Your task to perform on an android device: What is the news today? Image 0: 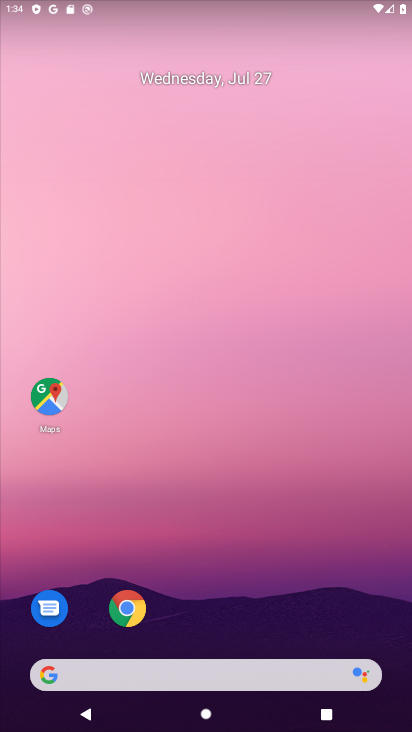
Step 0: click (96, 680)
Your task to perform on an android device: What is the news today? Image 1: 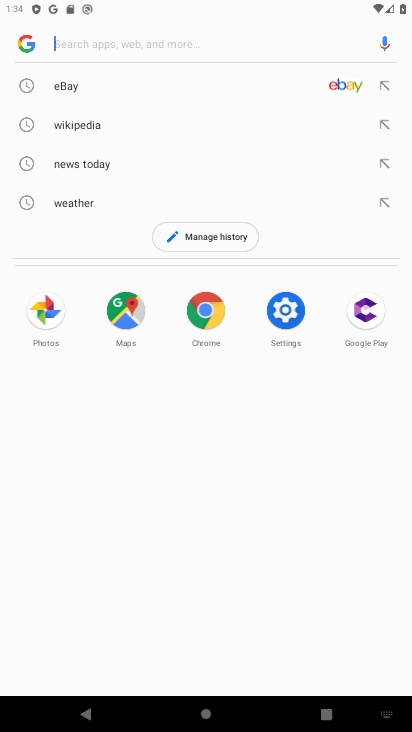
Step 1: type "What is the news today?"
Your task to perform on an android device: What is the news today? Image 2: 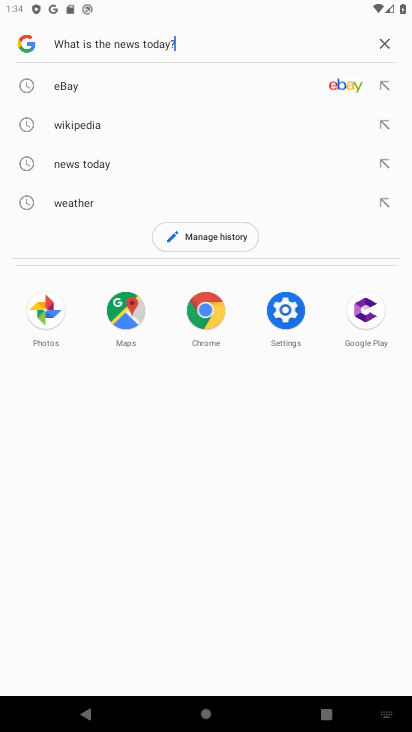
Step 2: type ""
Your task to perform on an android device: What is the news today? Image 3: 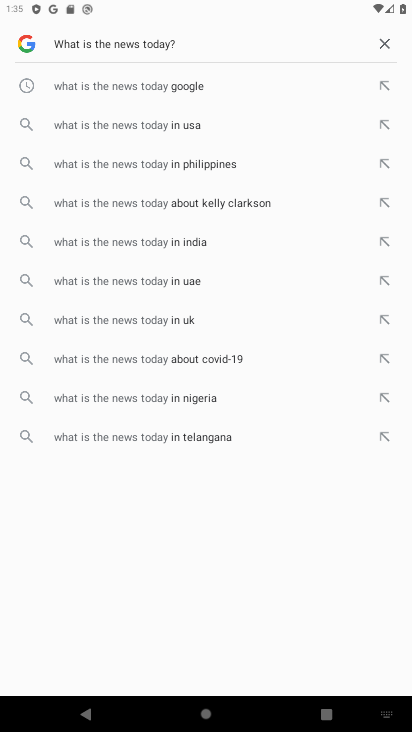
Step 3: type ""
Your task to perform on an android device: What is the news today? Image 4: 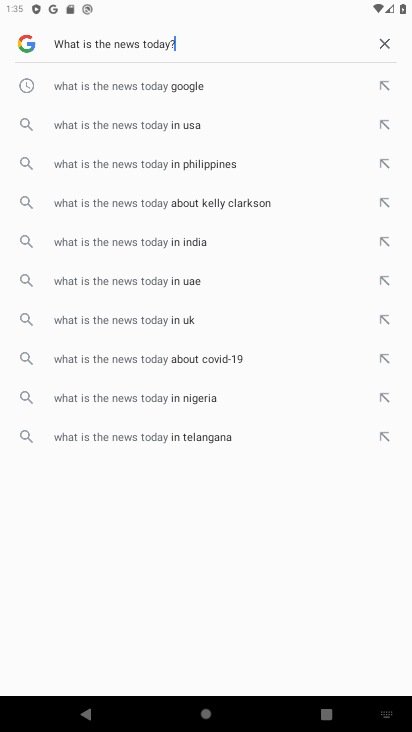
Step 4: type ""
Your task to perform on an android device: What is the news today? Image 5: 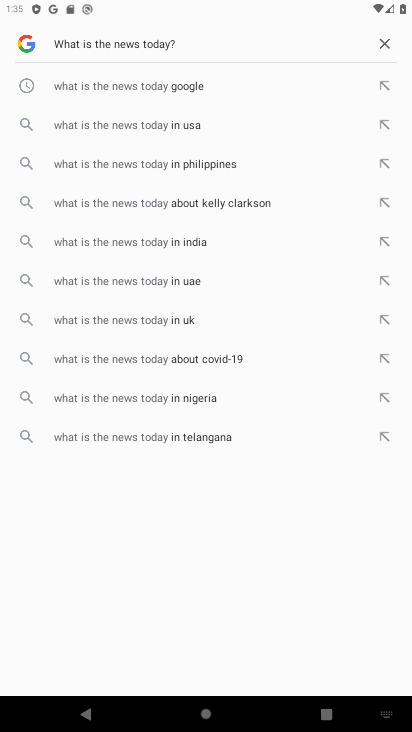
Step 5: task complete